Your task to perform on an android device: Open Yahoo.com Image 0: 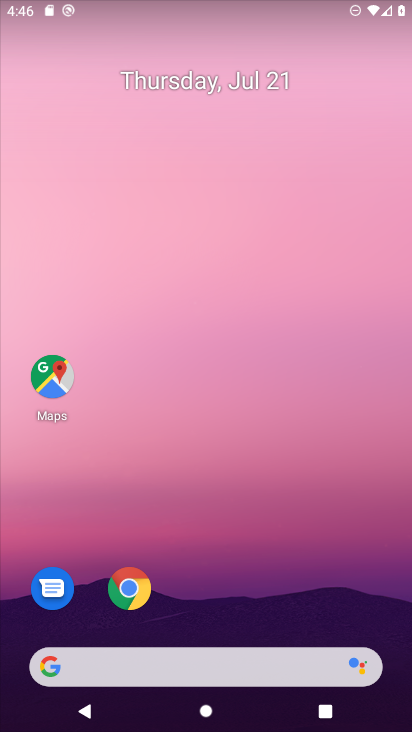
Step 0: drag from (200, 644) to (384, 71)
Your task to perform on an android device: Open Yahoo.com Image 1: 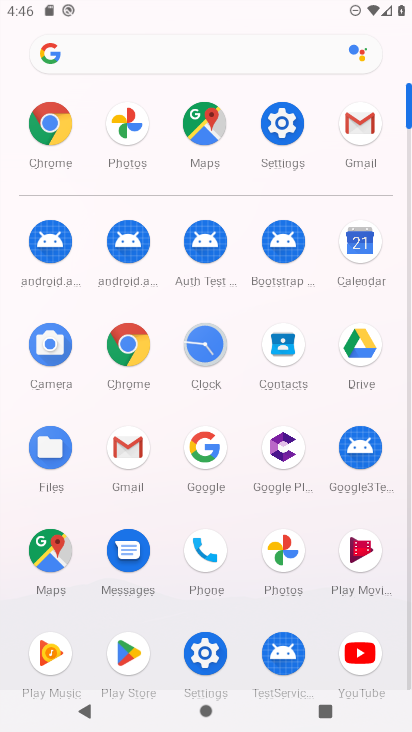
Step 1: click (56, 148)
Your task to perform on an android device: Open Yahoo.com Image 2: 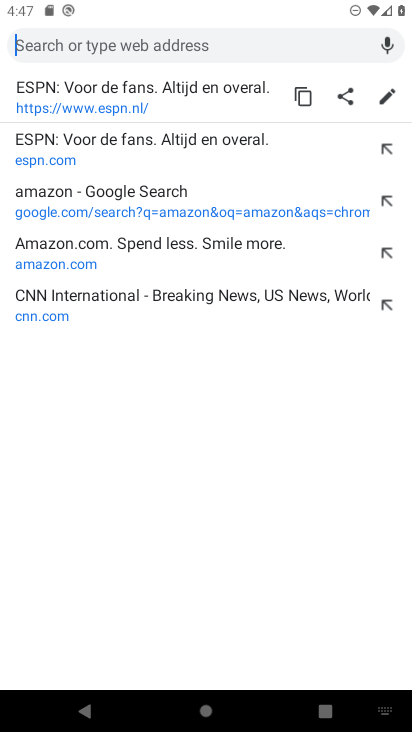
Step 2: type "yahoo"
Your task to perform on an android device: Open Yahoo.com Image 3: 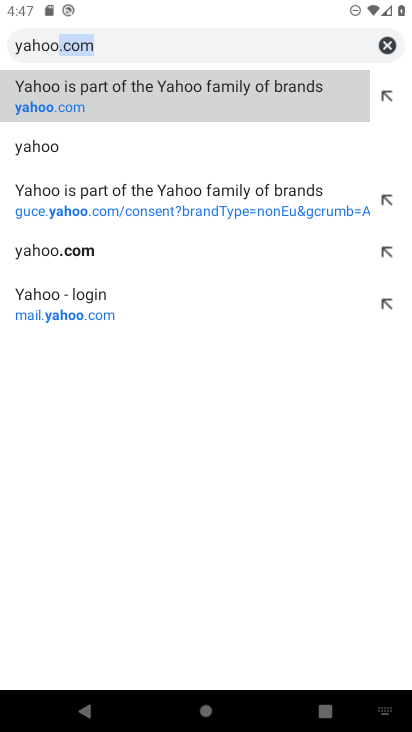
Step 3: click (90, 98)
Your task to perform on an android device: Open Yahoo.com Image 4: 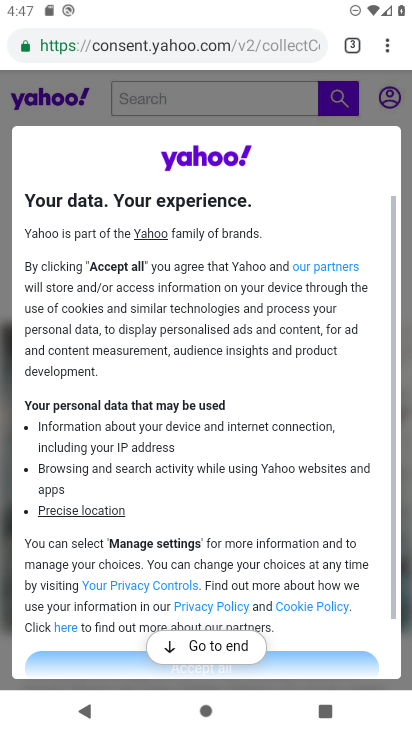
Step 4: task complete